Your task to perform on an android device: uninstall "Pinterest" Image 0: 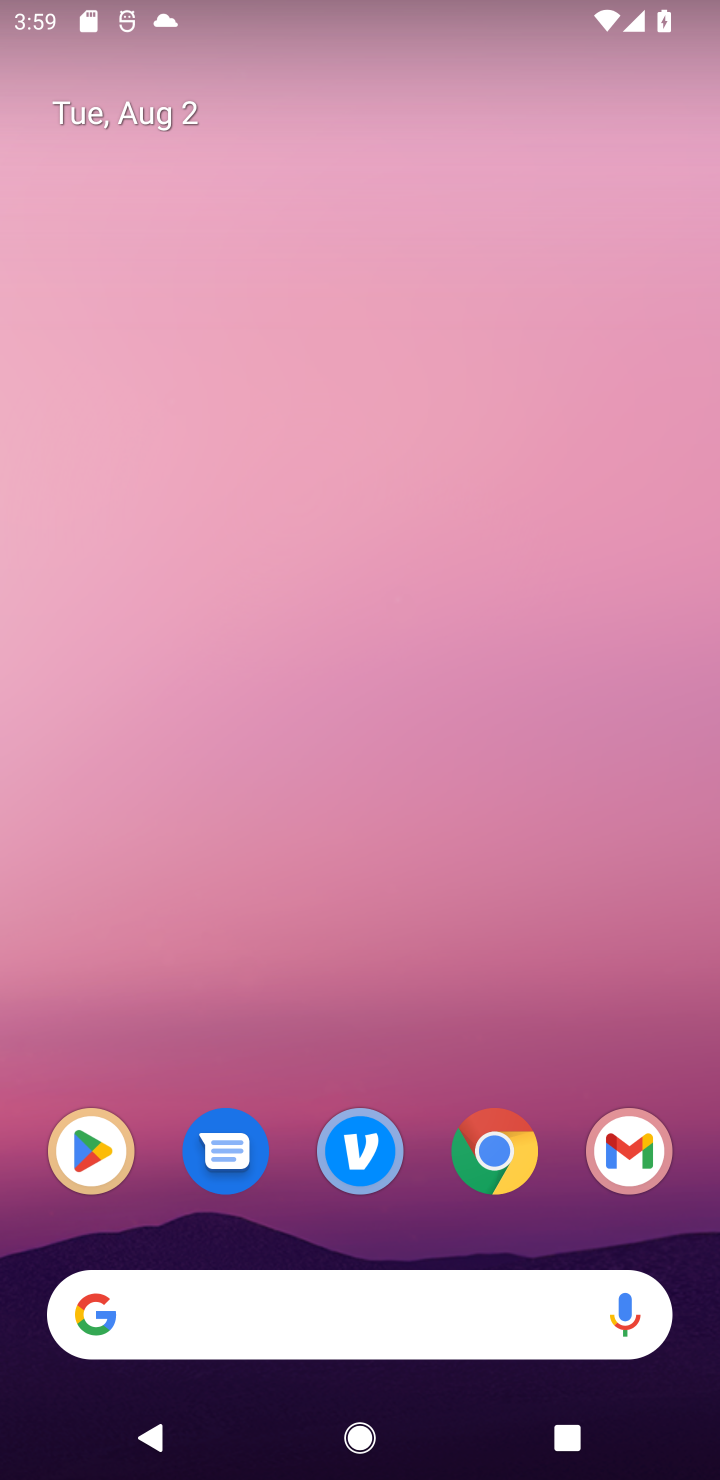
Step 0: drag from (371, 1311) to (319, 445)
Your task to perform on an android device: uninstall "Pinterest" Image 1: 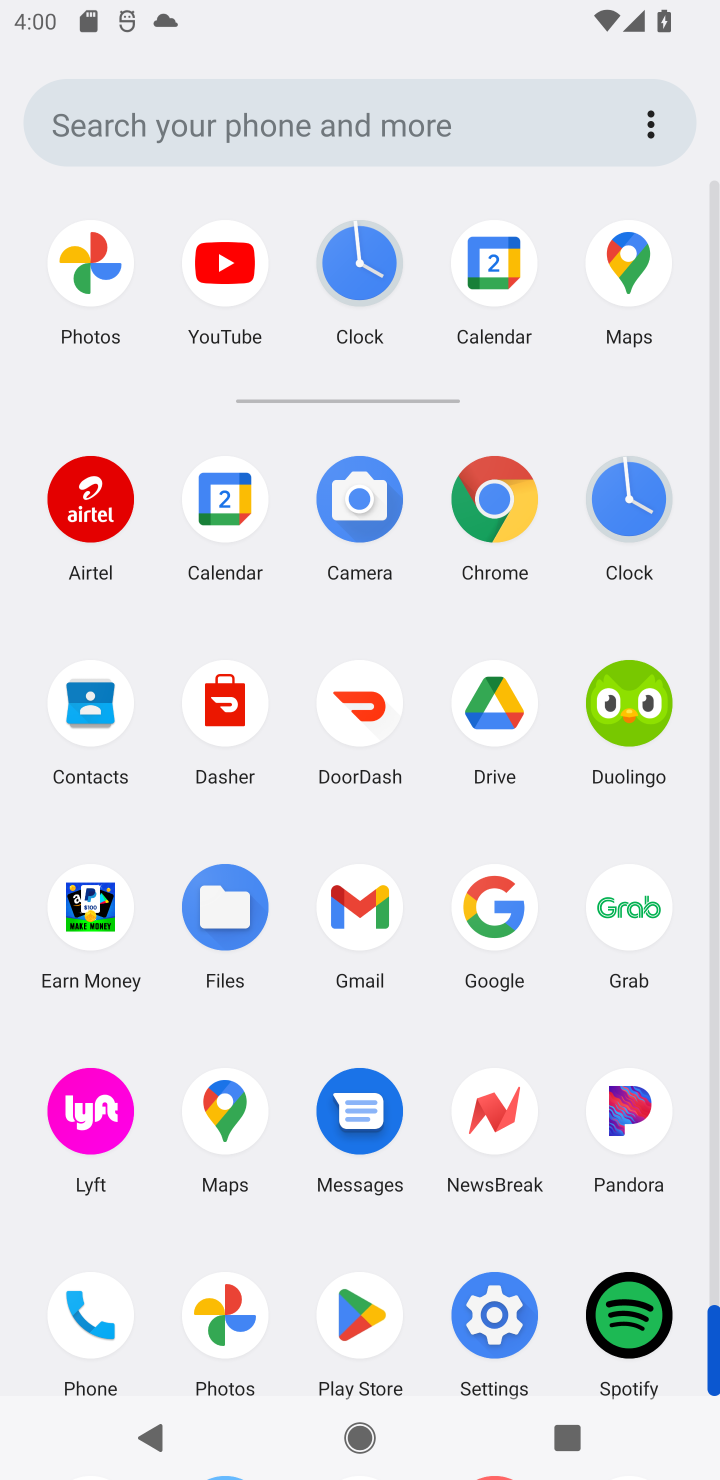
Step 1: task complete